Your task to perform on an android device: Show the shopping cart on bestbuy. Search for "bose soundlink" on bestbuy, select the first entry, and add it to the cart. Image 0: 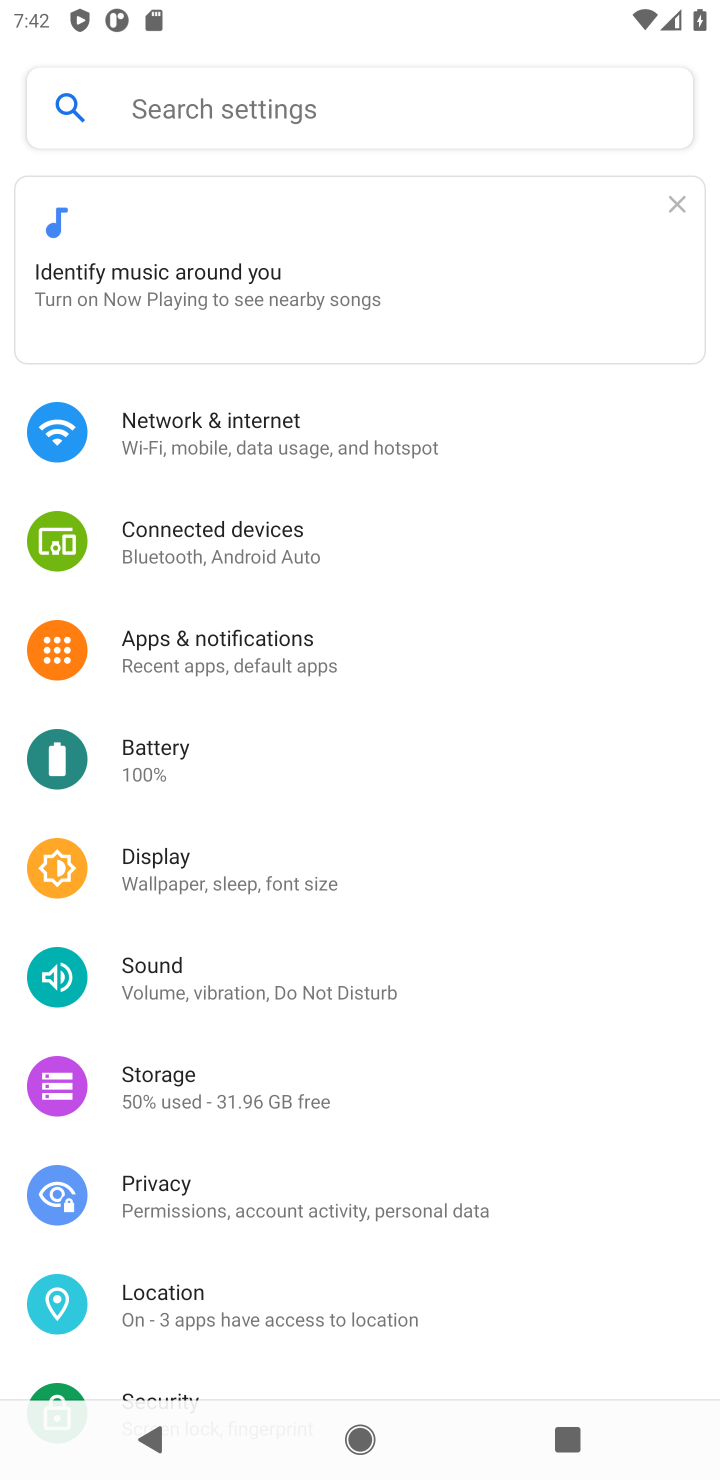
Step 0: press home button
Your task to perform on an android device: Show the shopping cart on bestbuy. Search for "bose soundlink" on bestbuy, select the first entry, and add it to the cart. Image 1: 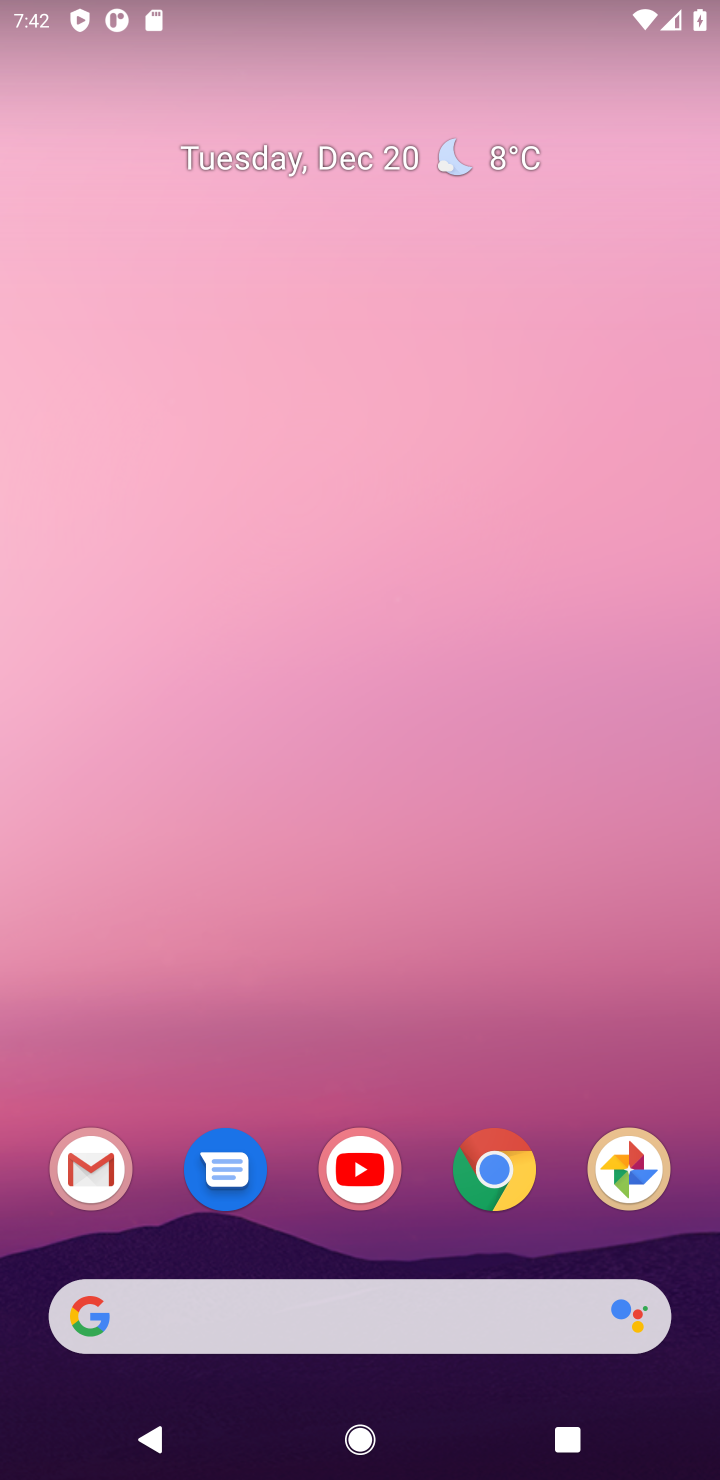
Step 1: click (530, 1181)
Your task to perform on an android device: Show the shopping cart on bestbuy. Search for "bose soundlink" on bestbuy, select the first entry, and add it to the cart. Image 2: 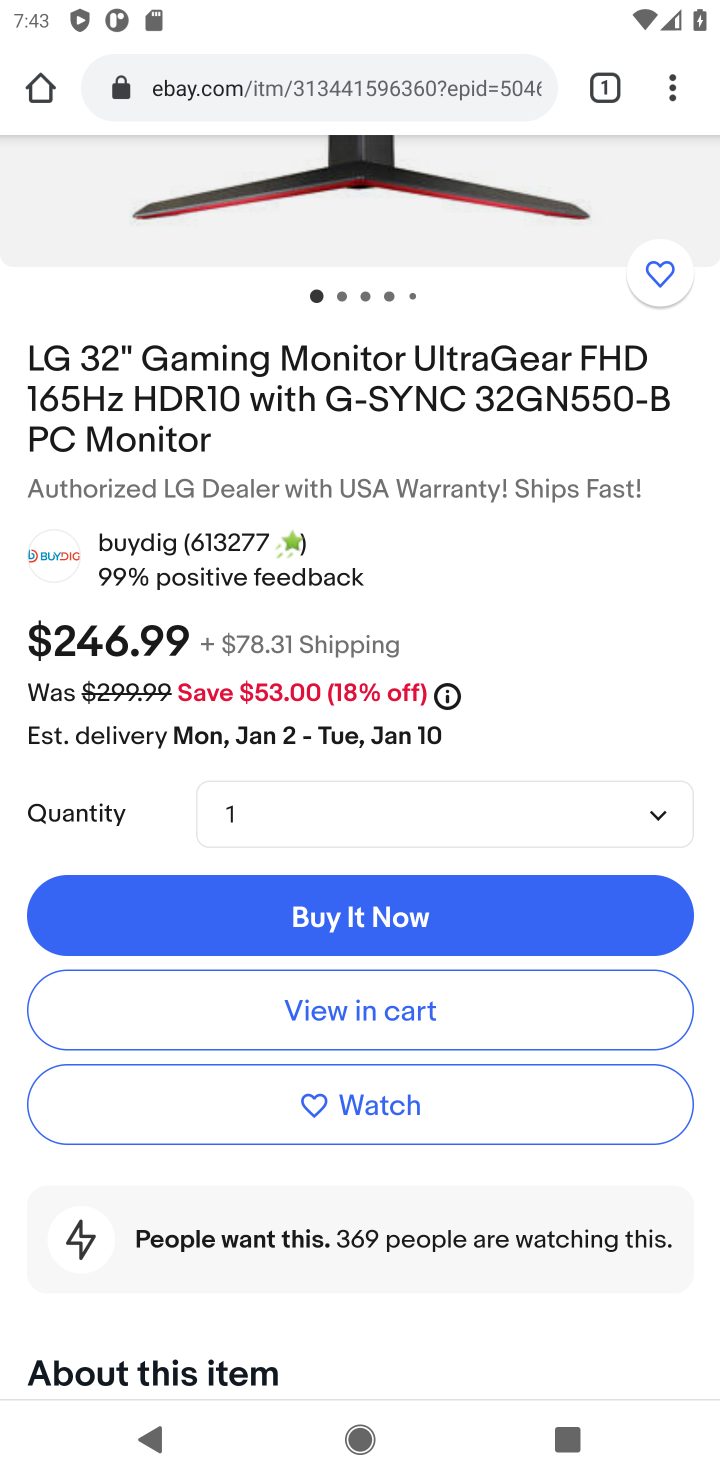
Step 2: task complete